Your task to perform on an android device: add a label to a message in the gmail app Image 0: 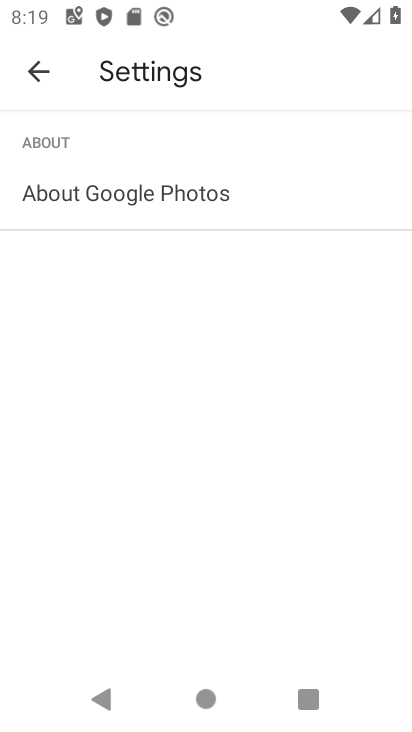
Step 0: press home button
Your task to perform on an android device: add a label to a message in the gmail app Image 1: 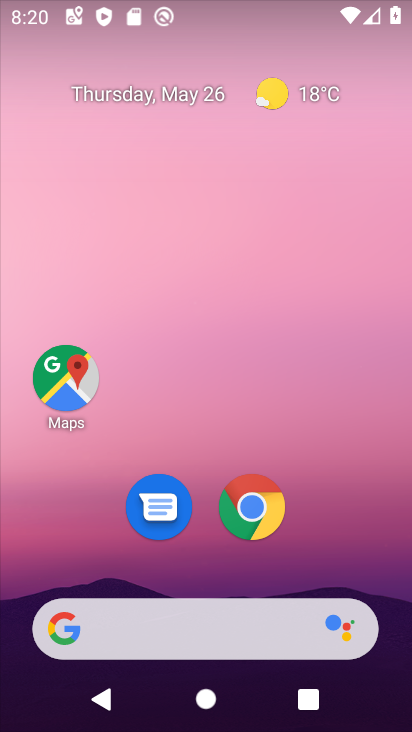
Step 1: drag from (263, 657) to (197, 51)
Your task to perform on an android device: add a label to a message in the gmail app Image 2: 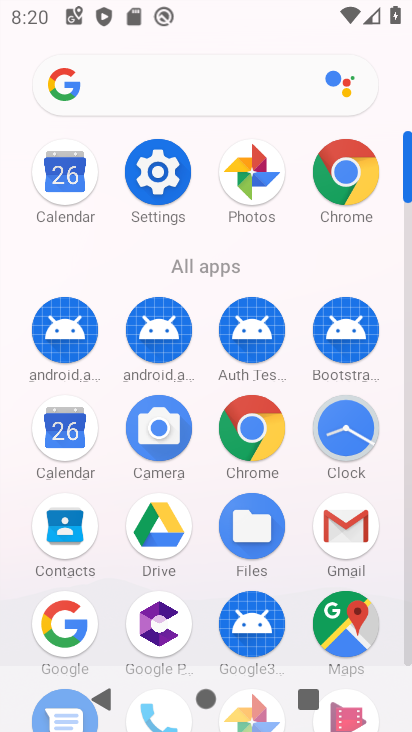
Step 2: click (339, 511)
Your task to perform on an android device: add a label to a message in the gmail app Image 3: 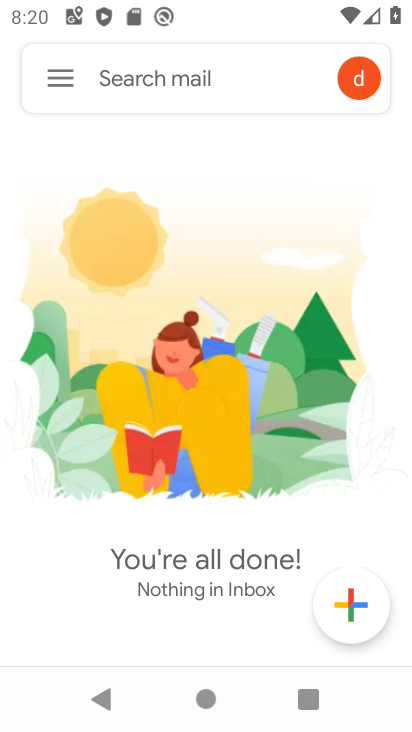
Step 3: click (45, 89)
Your task to perform on an android device: add a label to a message in the gmail app Image 4: 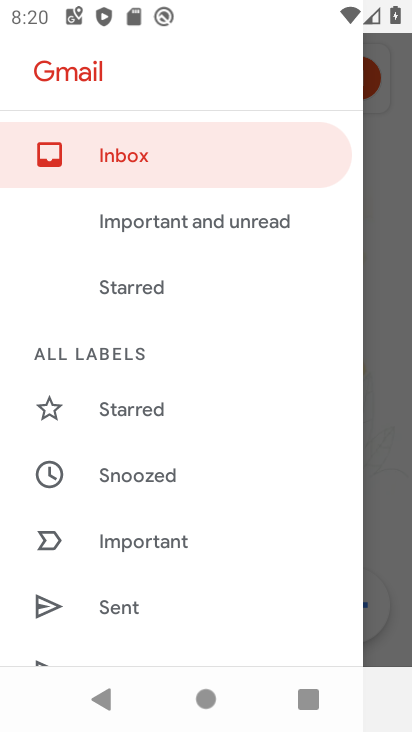
Step 4: drag from (157, 513) to (142, 189)
Your task to perform on an android device: add a label to a message in the gmail app Image 5: 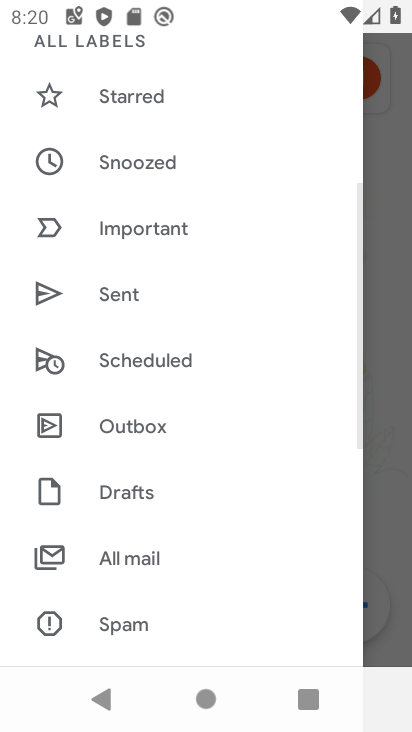
Step 5: drag from (159, 537) to (163, 188)
Your task to perform on an android device: add a label to a message in the gmail app Image 6: 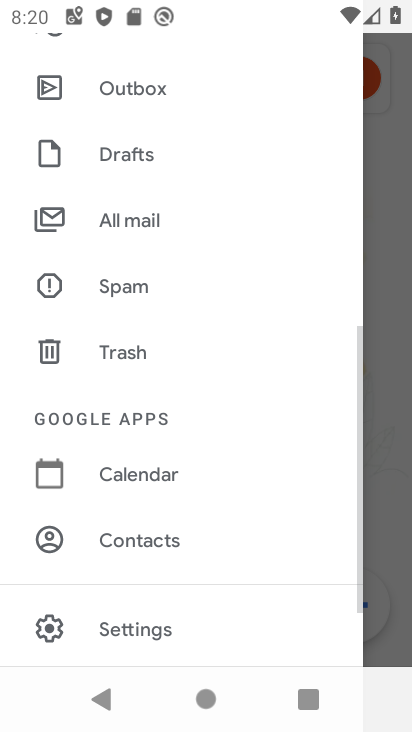
Step 6: drag from (189, 518) to (214, 295)
Your task to perform on an android device: add a label to a message in the gmail app Image 7: 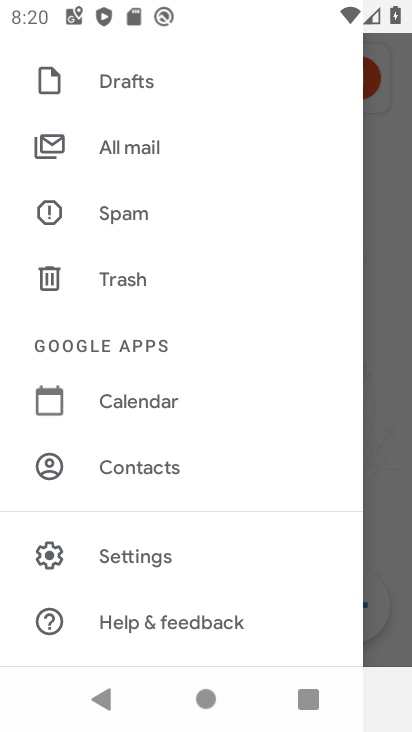
Step 7: click (153, 560)
Your task to perform on an android device: add a label to a message in the gmail app Image 8: 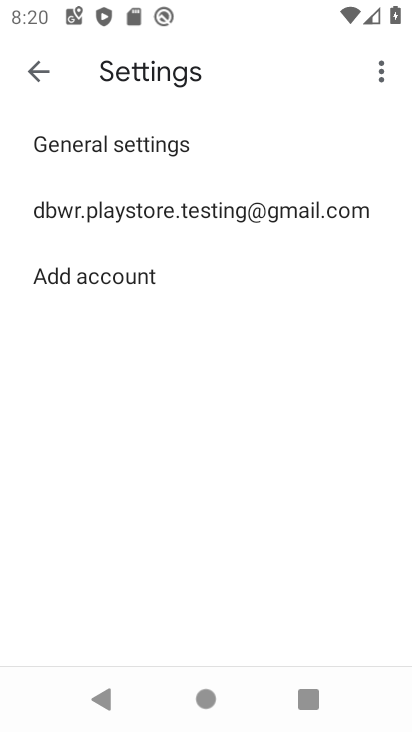
Step 8: click (139, 198)
Your task to perform on an android device: add a label to a message in the gmail app Image 9: 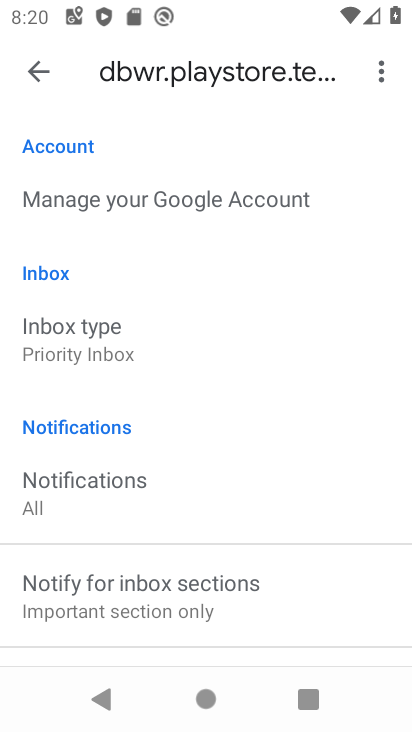
Step 9: drag from (153, 541) to (149, 189)
Your task to perform on an android device: add a label to a message in the gmail app Image 10: 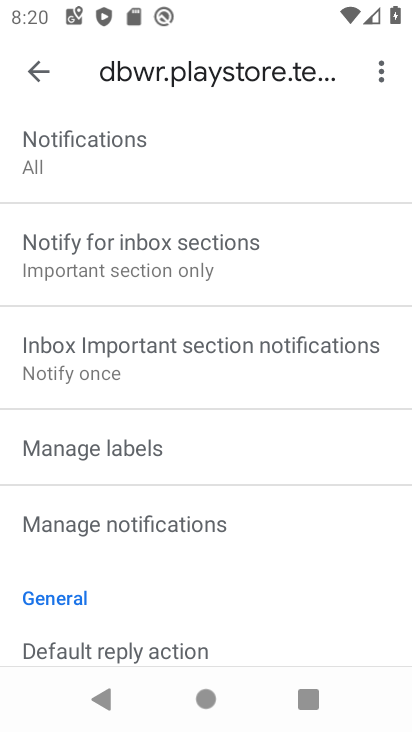
Step 10: drag from (169, 519) to (183, 388)
Your task to perform on an android device: add a label to a message in the gmail app Image 11: 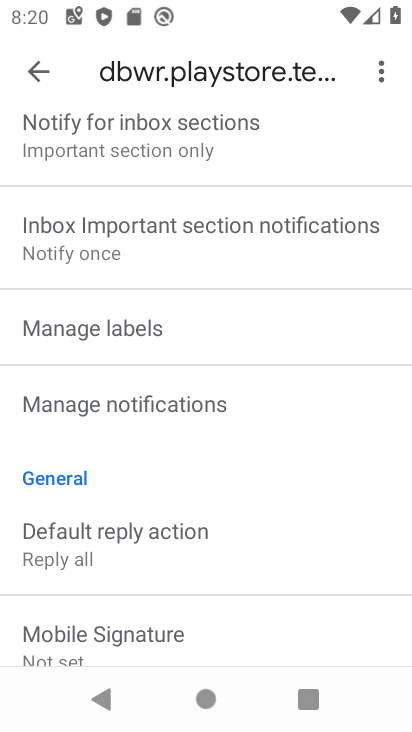
Step 11: click (127, 323)
Your task to perform on an android device: add a label to a message in the gmail app Image 12: 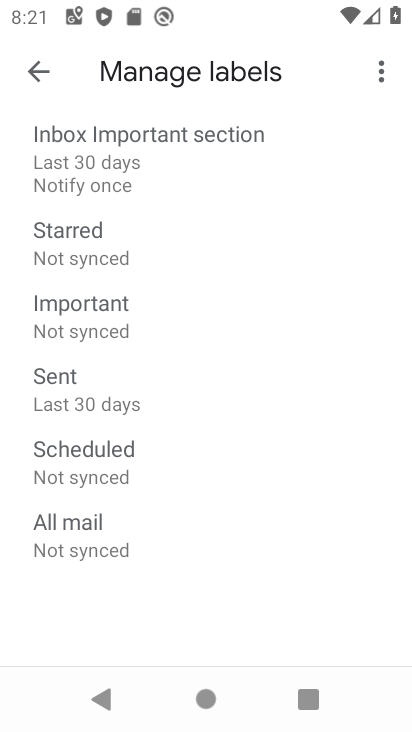
Step 12: click (100, 325)
Your task to perform on an android device: add a label to a message in the gmail app Image 13: 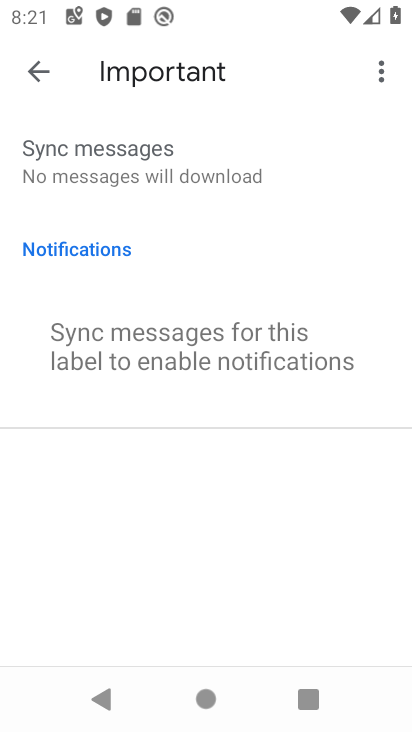
Step 13: task complete